Your task to perform on an android device: turn off location history Image 0: 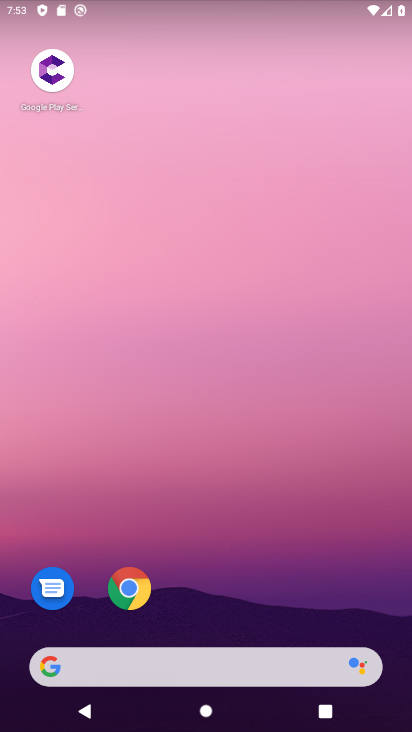
Step 0: drag from (281, 566) to (283, 11)
Your task to perform on an android device: turn off location history Image 1: 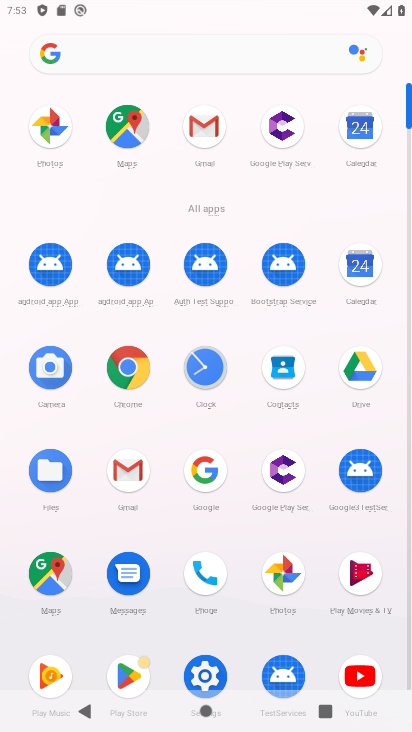
Step 1: click (200, 667)
Your task to perform on an android device: turn off location history Image 2: 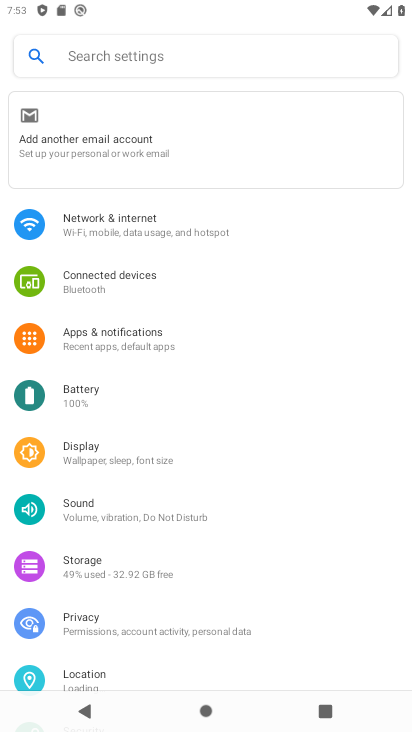
Step 2: click (74, 673)
Your task to perform on an android device: turn off location history Image 3: 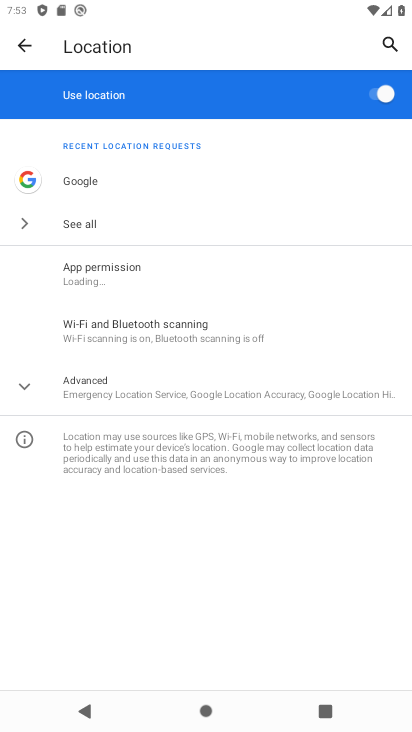
Step 3: click (119, 385)
Your task to perform on an android device: turn off location history Image 4: 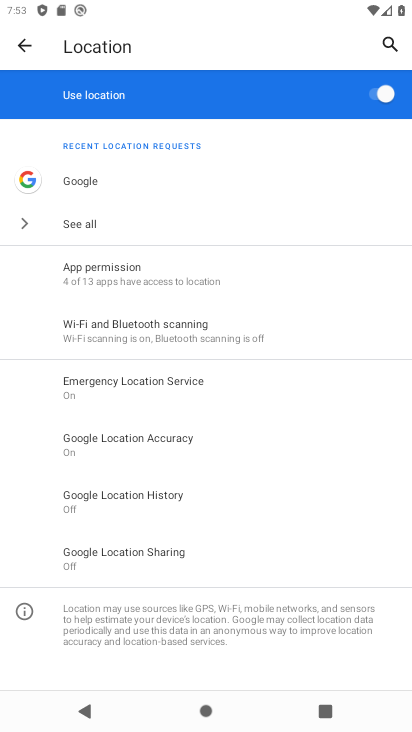
Step 4: click (140, 502)
Your task to perform on an android device: turn off location history Image 5: 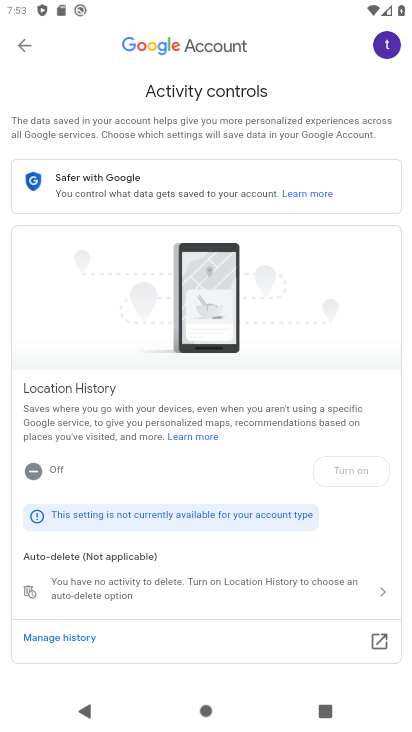
Step 5: task complete